Your task to perform on an android device: Open the calendar app, open the side menu, and click the "Day" option Image 0: 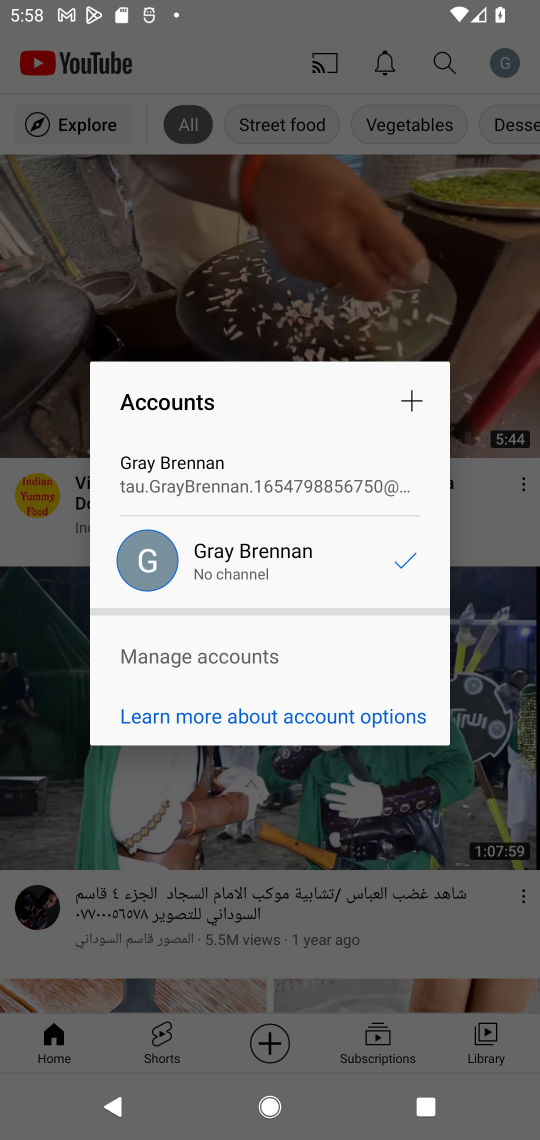
Step 0: click (362, 531)
Your task to perform on an android device: Open the calendar app, open the side menu, and click the "Day" option Image 1: 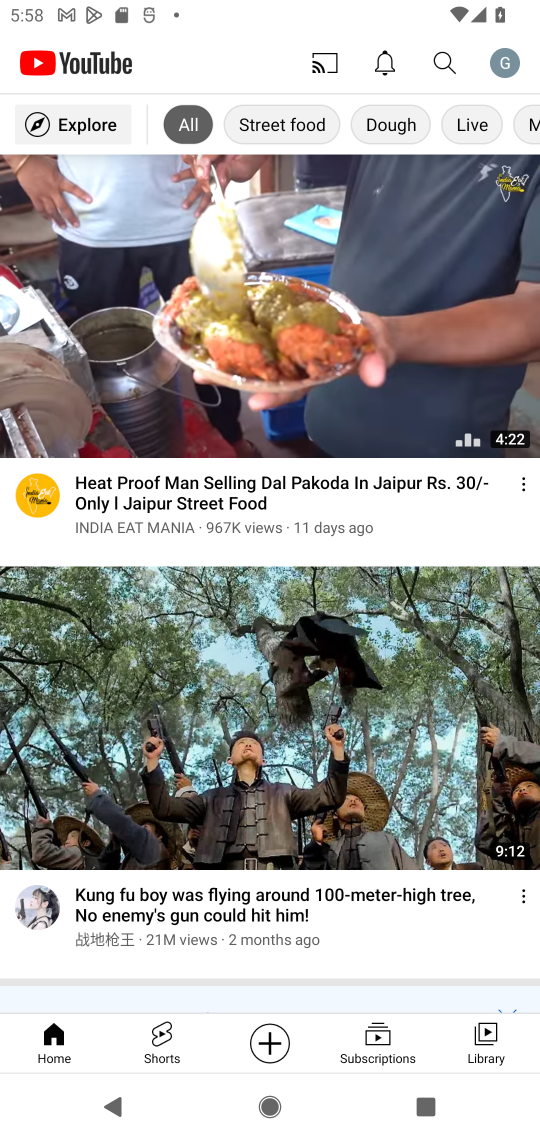
Step 1: press home button
Your task to perform on an android device: Open the calendar app, open the side menu, and click the "Day" option Image 2: 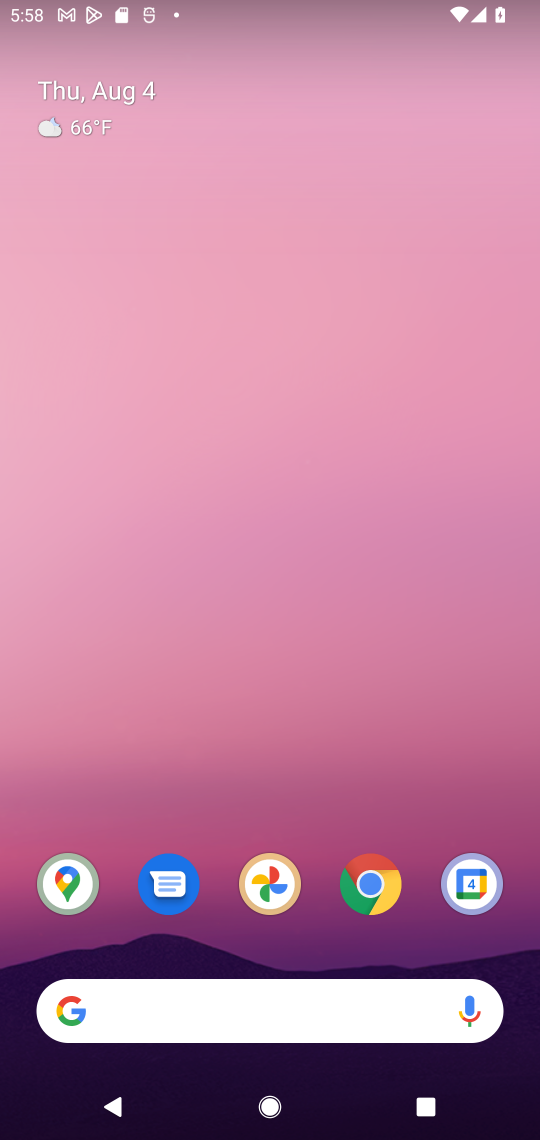
Step 2: click (486, 891)
Your task to perform on an android device: Open the calendar app, open the side menu, and click the "Day" option Image 3: 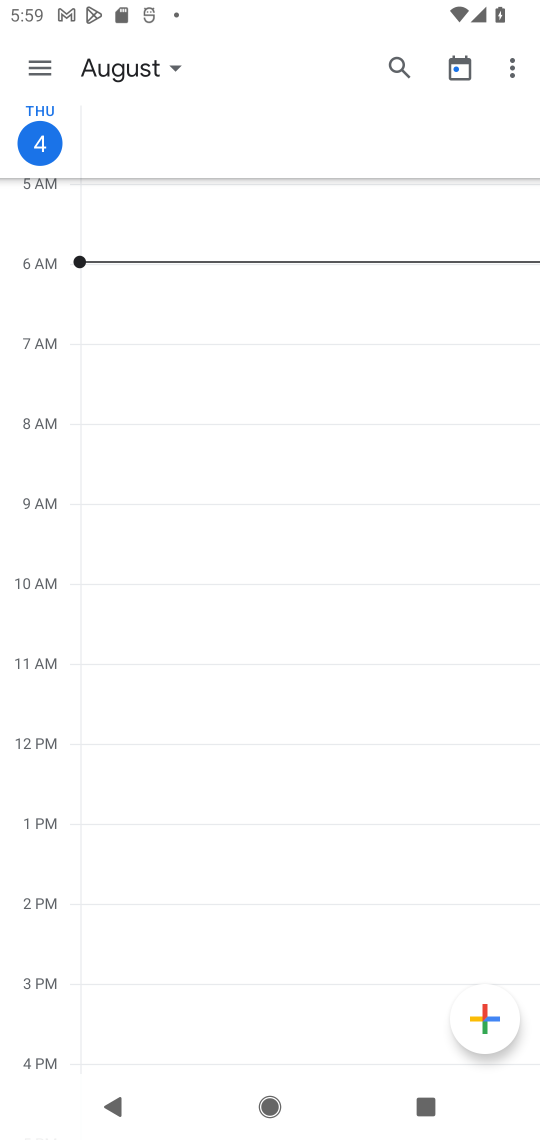
Step 3: task complete